Your task to perform on an android device: read, delete, or share a saved page in the chrome app Image 0: 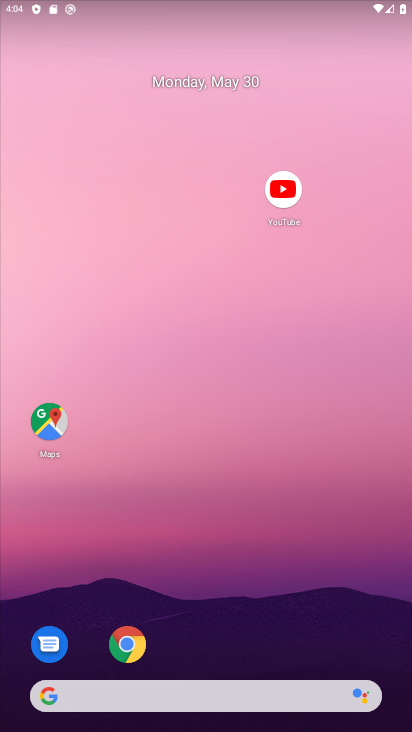
Step 0: click (126, 646)
Your task to perform on an android device: read, delete, or share a saved page in the chrome app Image 1: 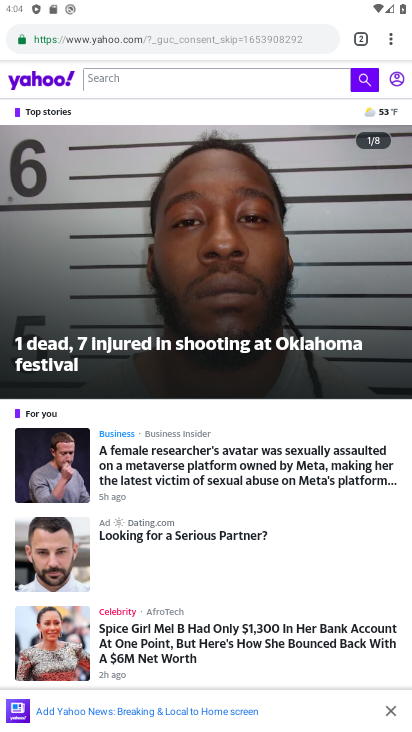
Step 1: task complete